Your task to perform on an android device: Open Chrome and go to the settings page Image 0: 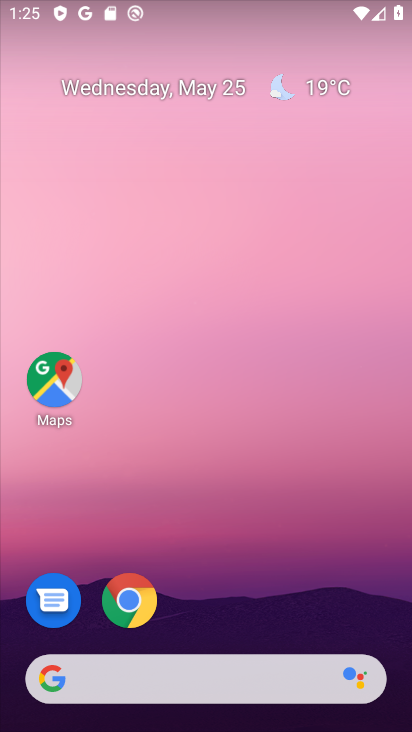
Step 0: click (130, 617)
Your task to perform on an android device: Open Chrome and go to the settings page Image 1: 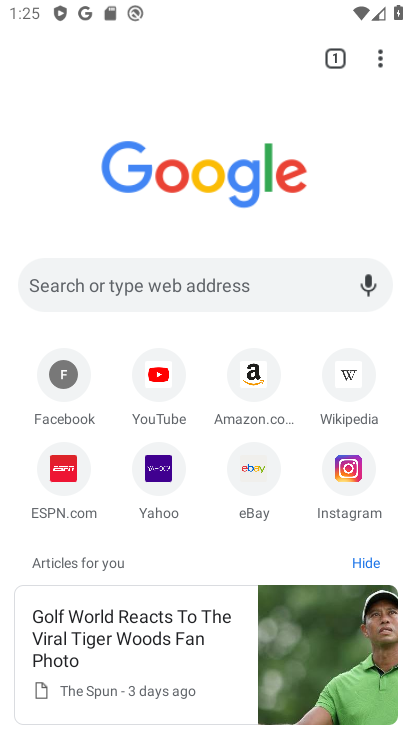
Step 1: task complete